Your task to perform on an android device: change keyboard looks Image 0: 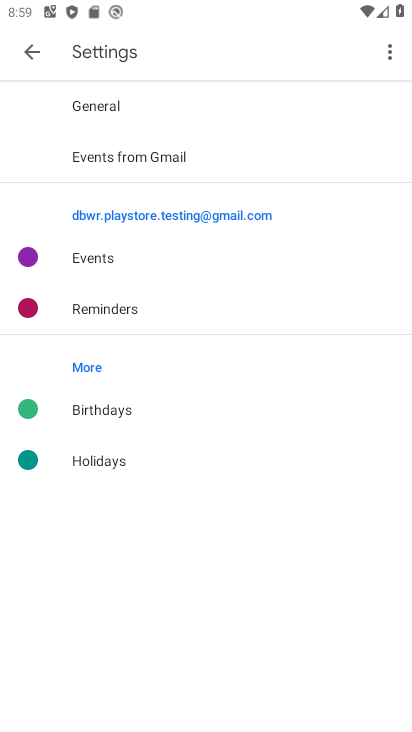
Step 0: press home button
Your task to perform on an android device: change keyboard looks Image 1: 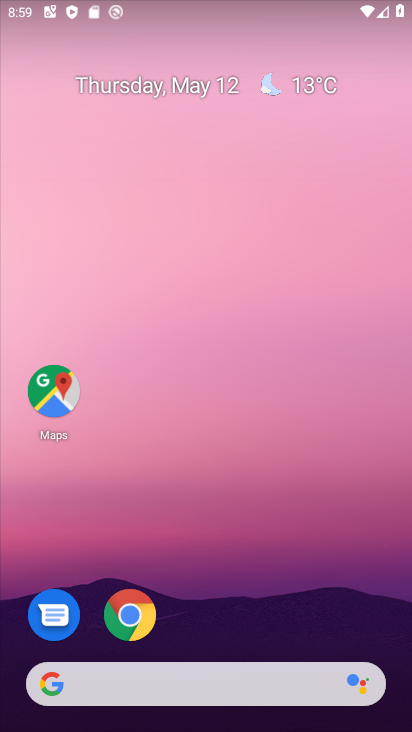
Step 1: drag from (212, 656) to (206, 5)
Your task to perform on an android device: change keyboard looks Image 2: 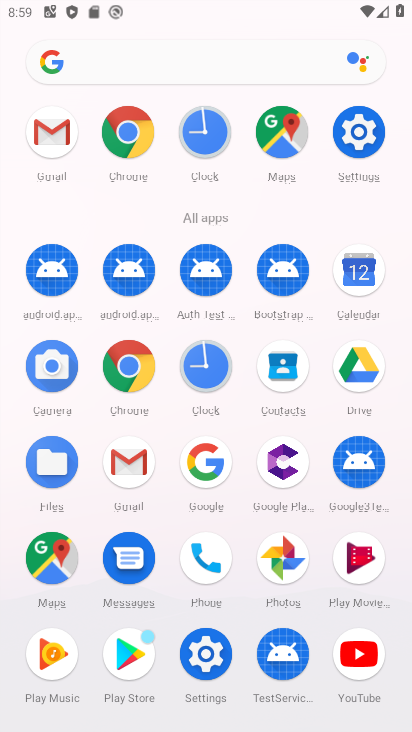
Step 2: click (359, 145)
Your task to perform on an android device: change keyboard looks Image 3: 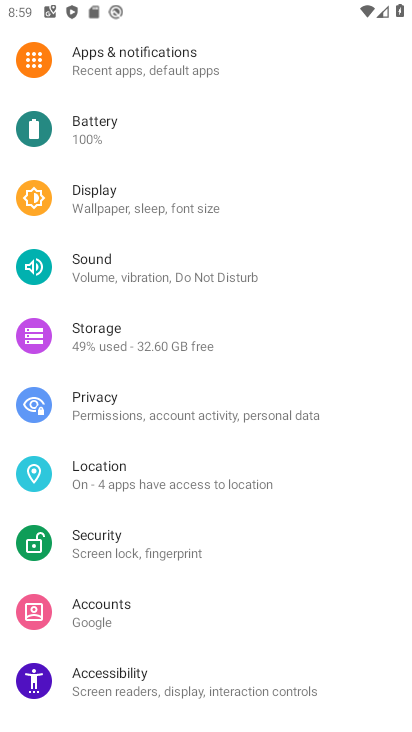
Step 3: drag from (156, 545) to (107, 200)
Your task to perform on an android device: change keyboard looks Image 4: 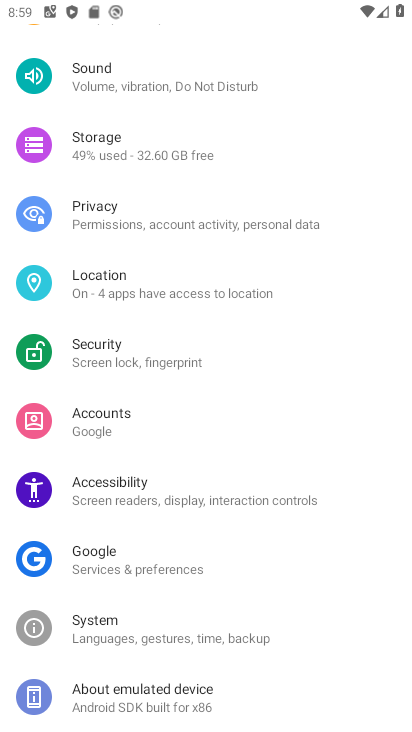
Step 4: click (119, 611)
Your task to perform on an android device: change keyboard looks Image 5: 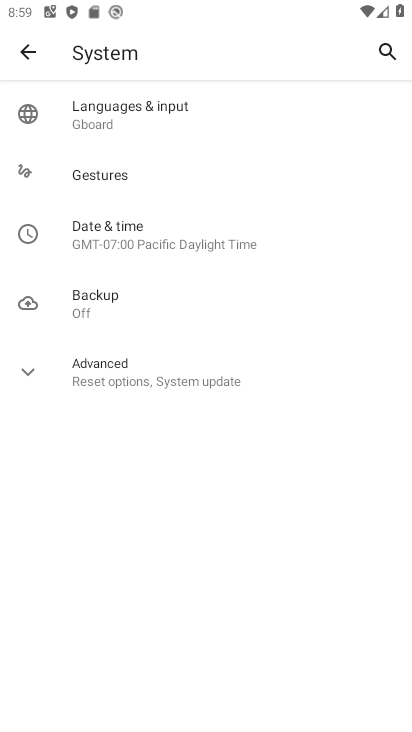
Step 5: click (115, 125)
Your task to perform on an android device: change keyboard looks Image 6: 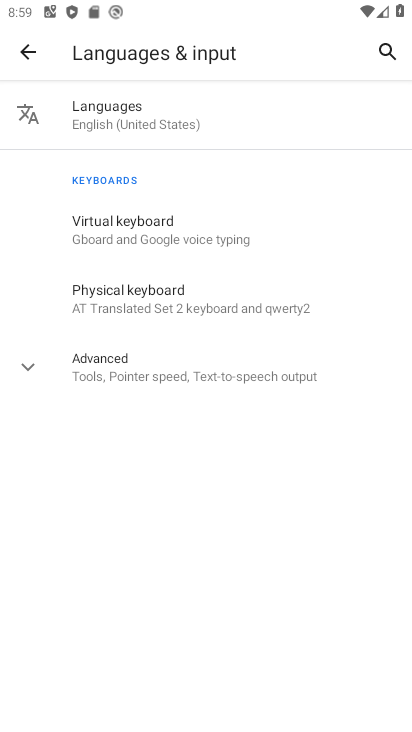
Step 6: click (126, 234)
Your task to perform on an android device: change keyboard looks Image 7: 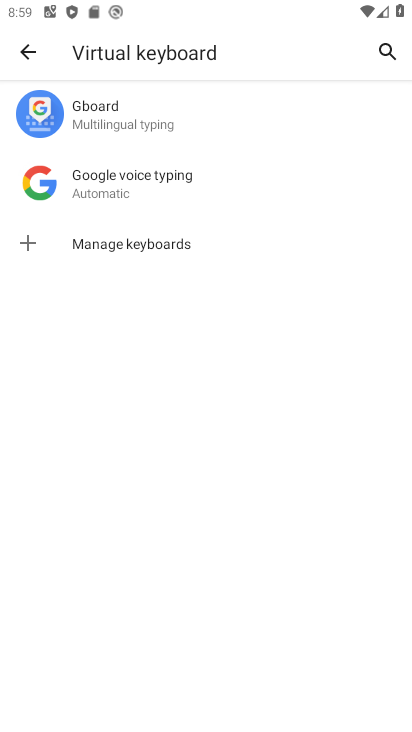
Step 7: click (114, 126)
Your task to perform on an android device: change keyboard looks Image 8: 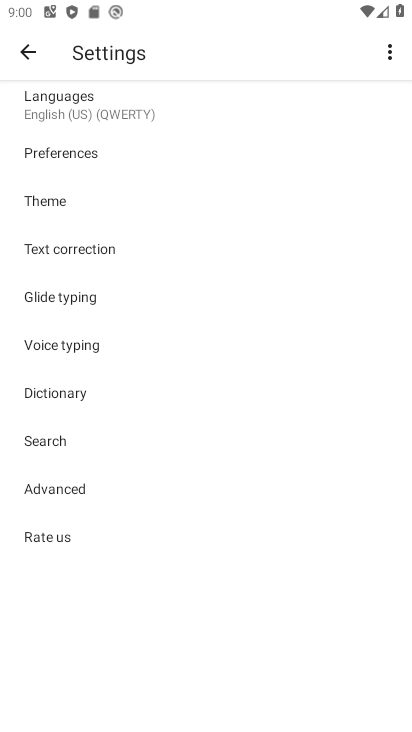
Step 8: click (78, 199)
Your task to perform on an android device: change keyboard looks Image 9: 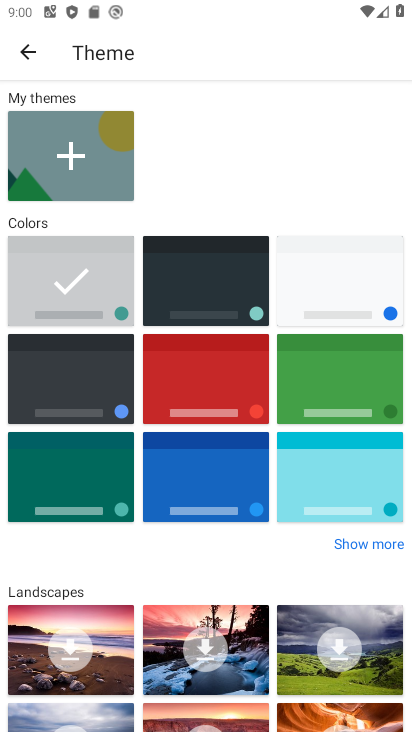
Step 9: click (200, 355)
Your task to perform on an android device: change keyboard looks Image 10: 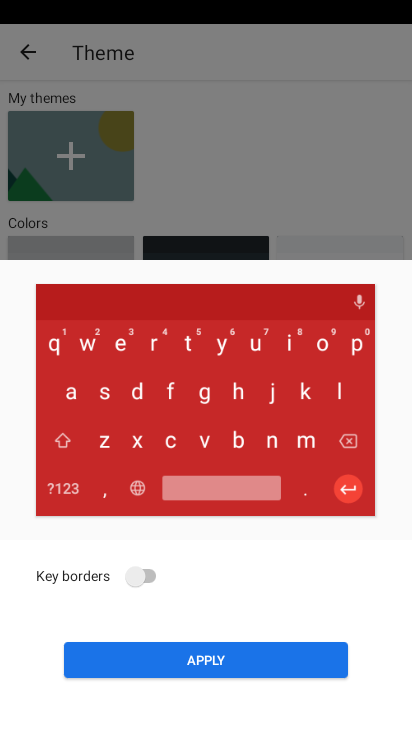
Step 10: click (217, 661)
Your task to perform on an android device: change keyboard looks Image 11: 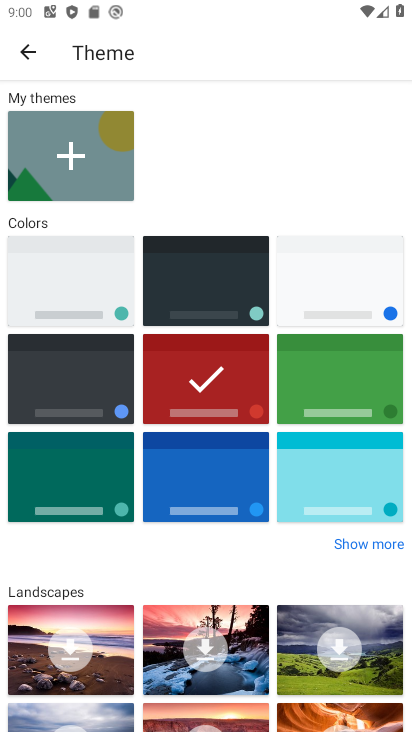
Step 11: task complete